Your task to perform on an android device: add a label to a message in the gmail app Image 0: 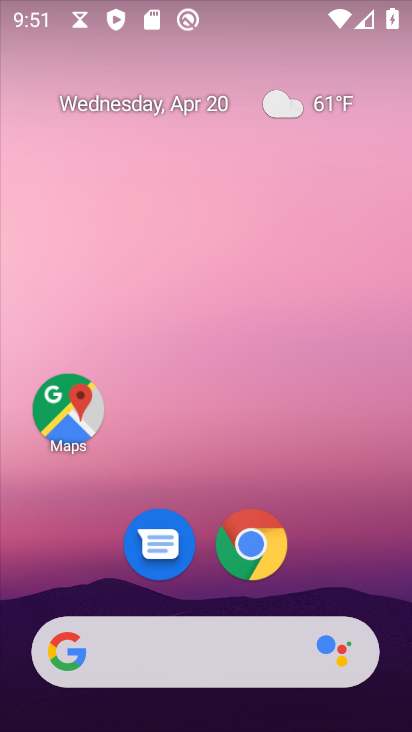
Step 0: drag from (163, 643) to (282, 103)
Your task to perform on an android device: add a label to a message in the gmail app Image 1: 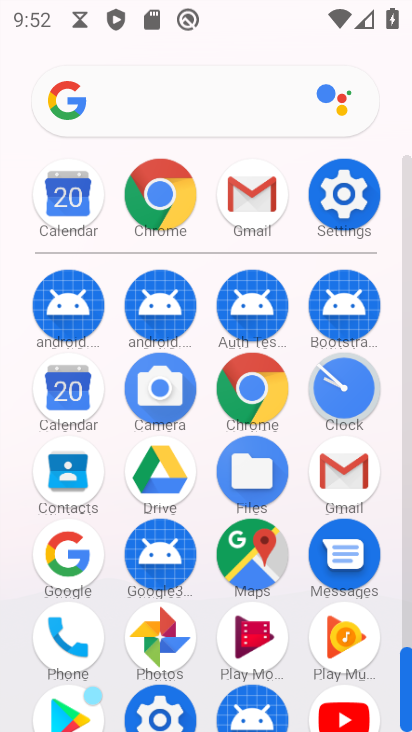
Step 1: click (257, 210)
Your task to perform on an android device: add a label to a message in the gmail app Image 2: 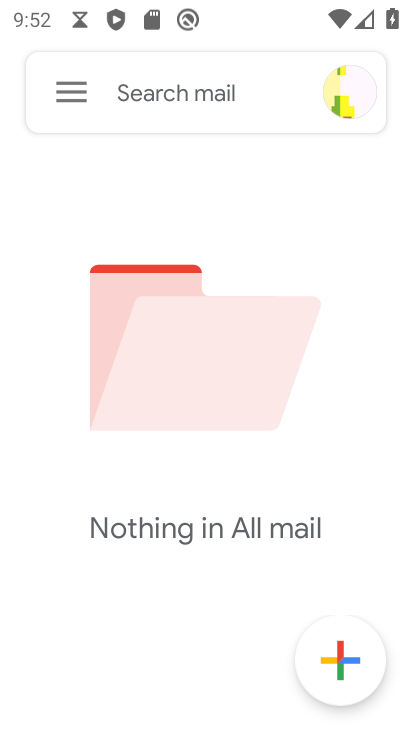
Step 2: task complete